Your task to perform on an android device: Open the stopwatch Image 0: 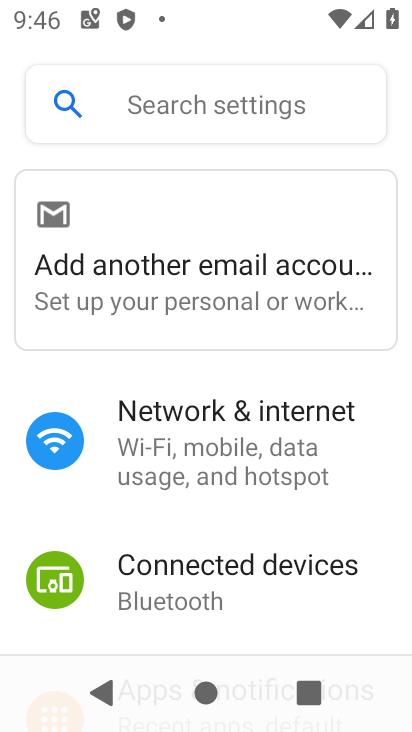
Step 0: press home button
Your task to perform on an android device: Open the stopwatch Image 1: 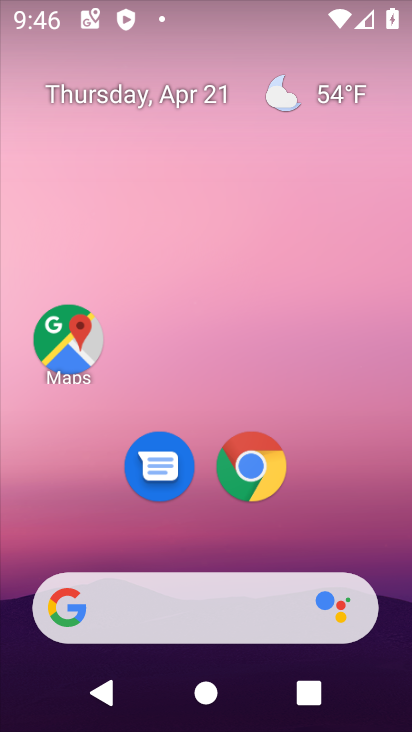
Step 1: drag from (366, 525) to (374, 121)
Your task to perform on an android device: Open the stopwatch Image 2: 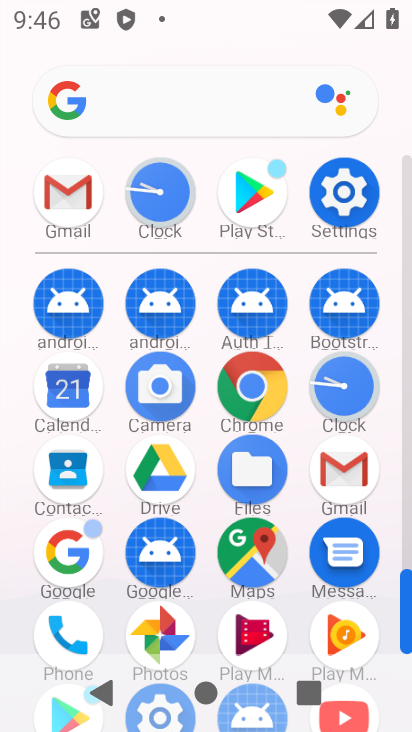
Step 2: click (348, 396)
Your task to perform on an android device: Open the stopwatch Image 3: 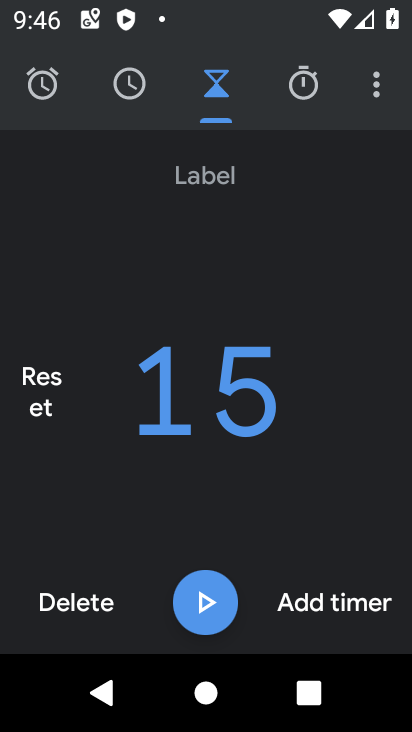
Step 3: click (311, 86)
Your task to perform on an android device: Open the stopwatch Image 4: 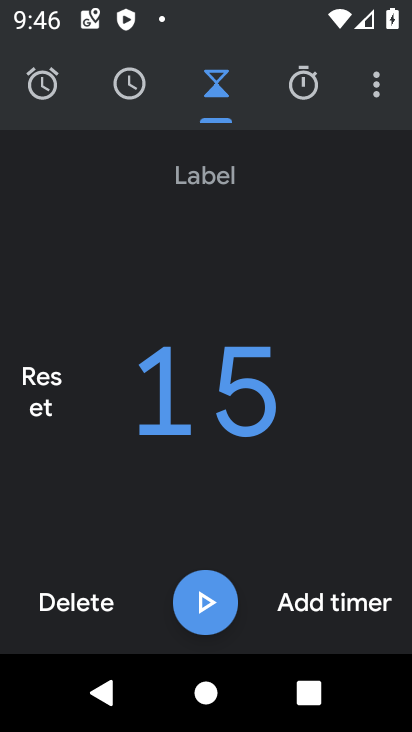
Step 4: click (311, 88)
Your task to perform on an android device: Open the stopwatch Image 5: 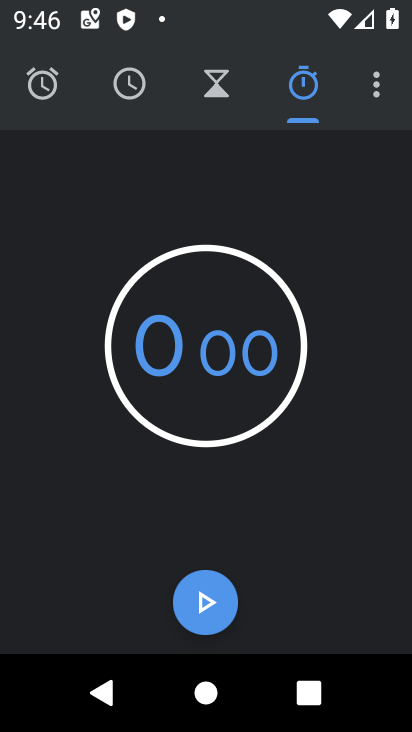
Step 5: click (223, 605)
Your task to perform on an android device: Open the stopwatch Image 6: 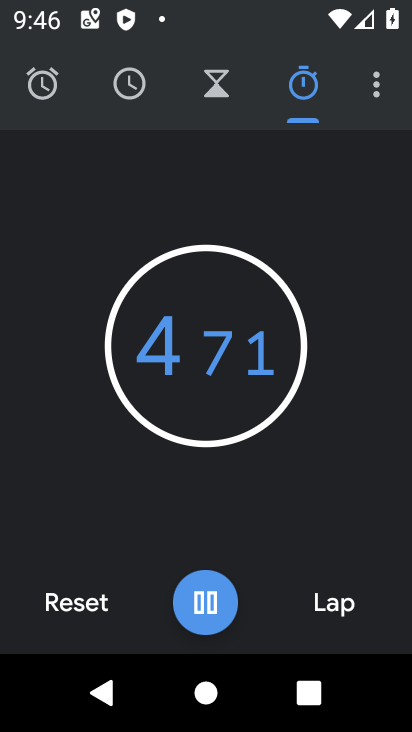
Step 6: click (223, 604)
Your task to perform on an android device: Open the stopwatch Image 7: 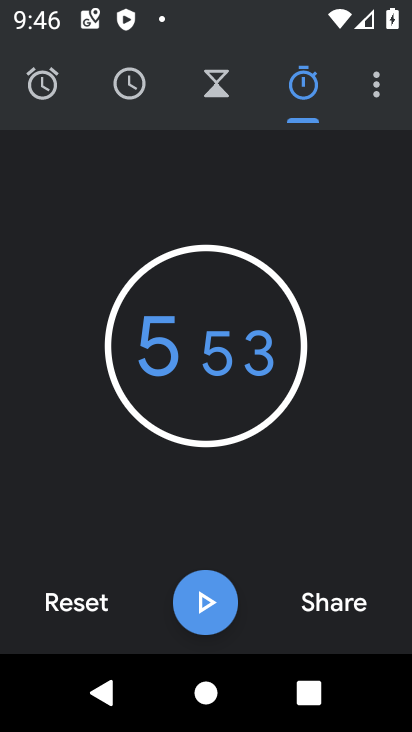
Step 7: task complete